Your task to perform on an android device: turn vacation reply on in the gmail app Image 0: 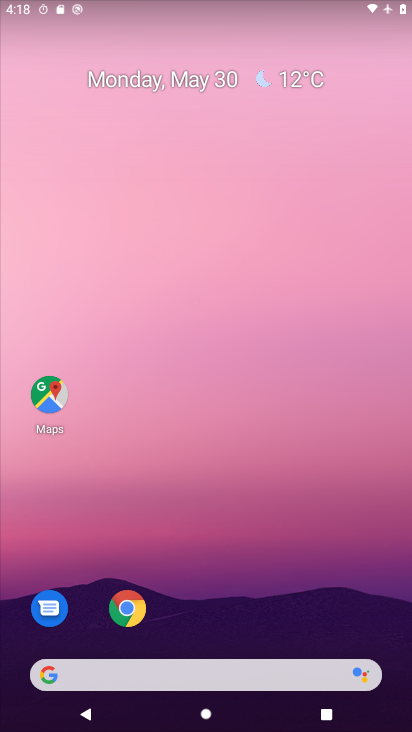
Step 0: drag from (244, 509) to (16, 59)
Your task to perform on an android device: turn vacation reply on in the gmail app Image 1: 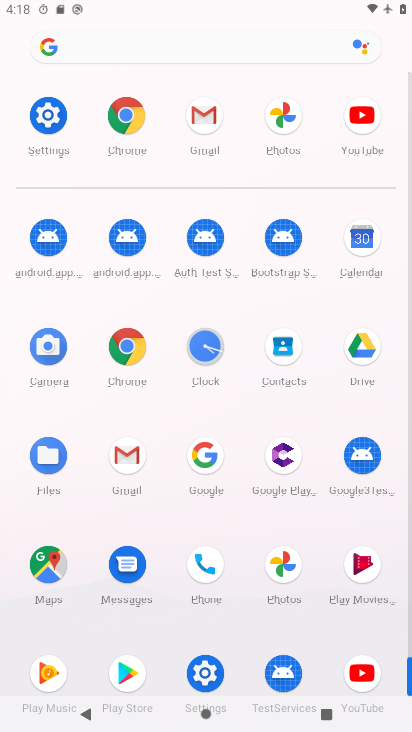
Step 1: click (121, 457)
Your task to perform on an android device: turn vacation reply on in the gmail app Image 2: 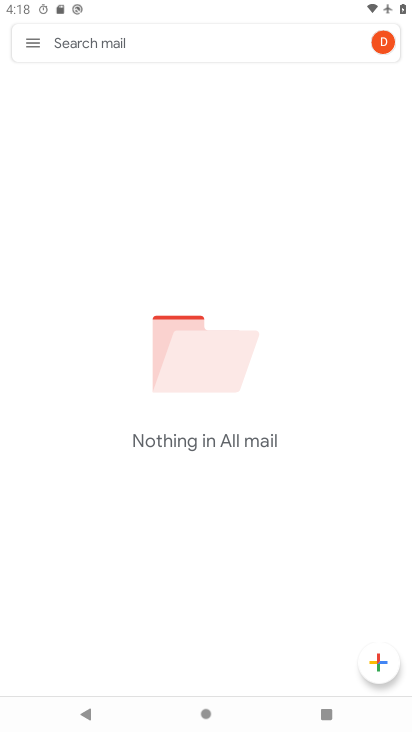
Step 2: click (32, 38)
Your task to perform on an android device: turn vacation reply on in the gmail app Image 3: 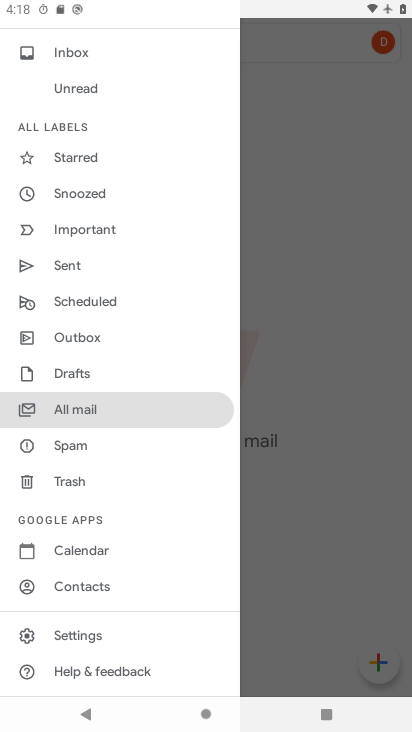
Step 3: click (131, 640)
Your task to perform on an android device: turn vacation reply on in the gmail app Image 4: 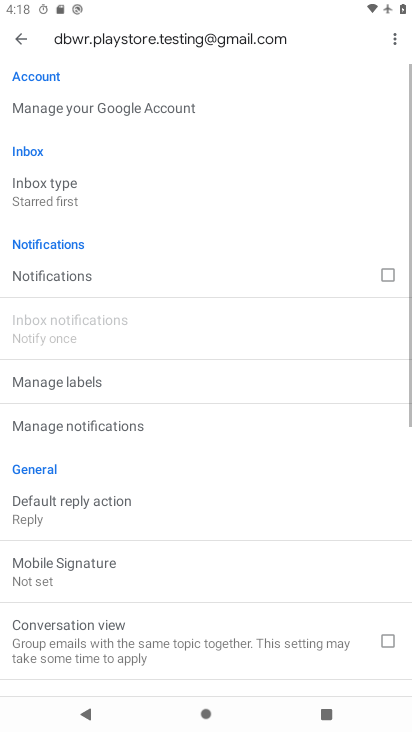
Step 4: drag from (255, 583) to (201, 203)
Your task to perform on an android device: turn vacation reply on in the gmail app Image 5: 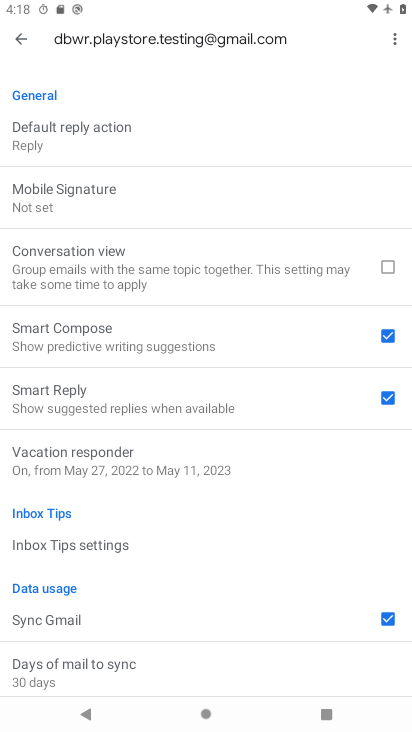
Step 5: click (98, 471)
Your task to perform on an android device: turn vacation reply on in the gmail app Image 6: 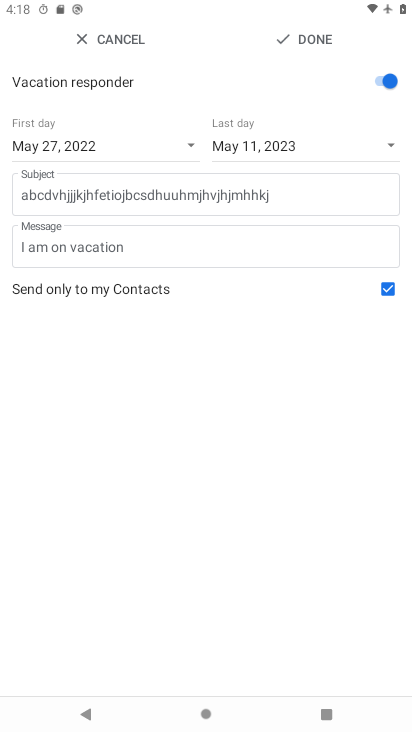
Step 6: click (310, 42)
Your task to perform on an android device: turn vacation reply on in the gmail app Image 7: 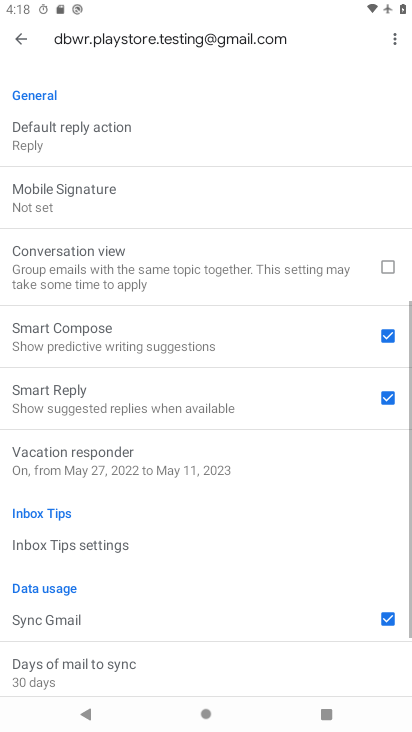
Step 7: task complete